Your task to perform on an android device: change notification settings in the gmail app Image 0: 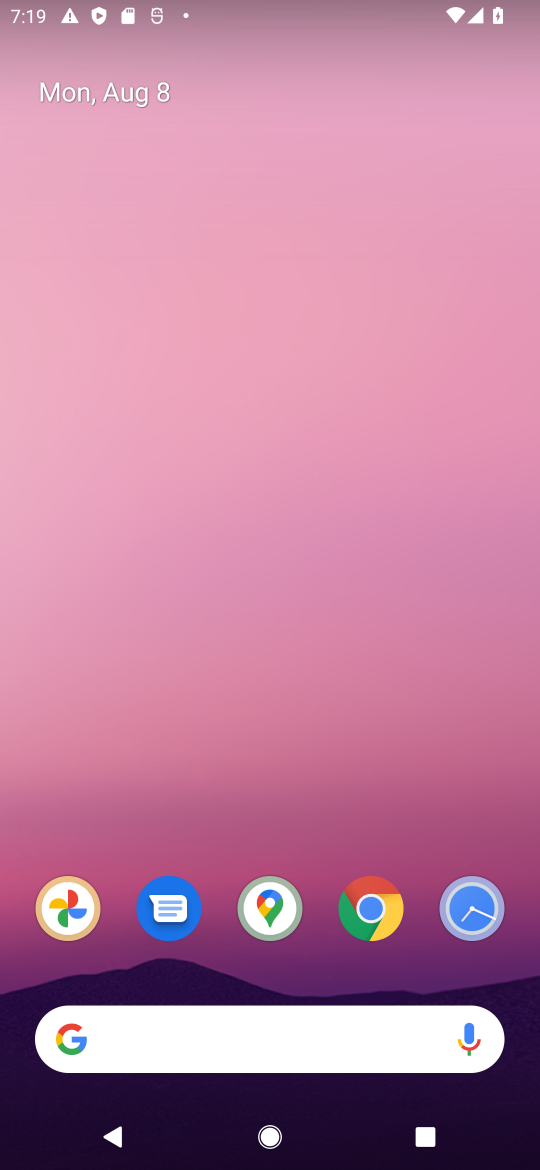
Step 0: drag from (318, 939) to (295, 171)
Your task to perform on an android device: change notification settings in the gmail app Image 1: 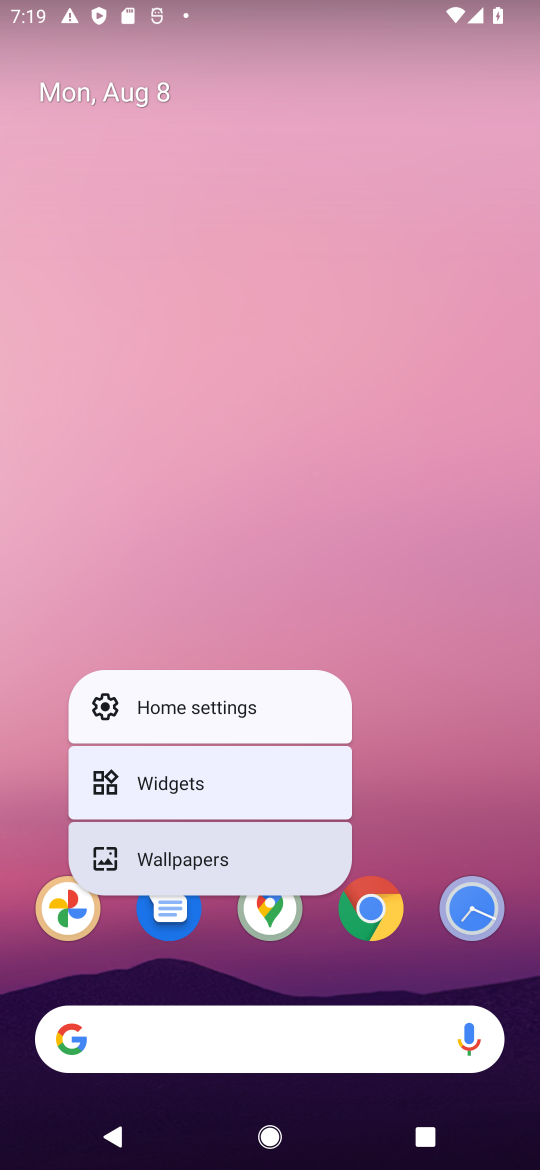
Step 1: click (360, 527)
Your task to perform on an android device: change notification settings in the gmail app Image 2: 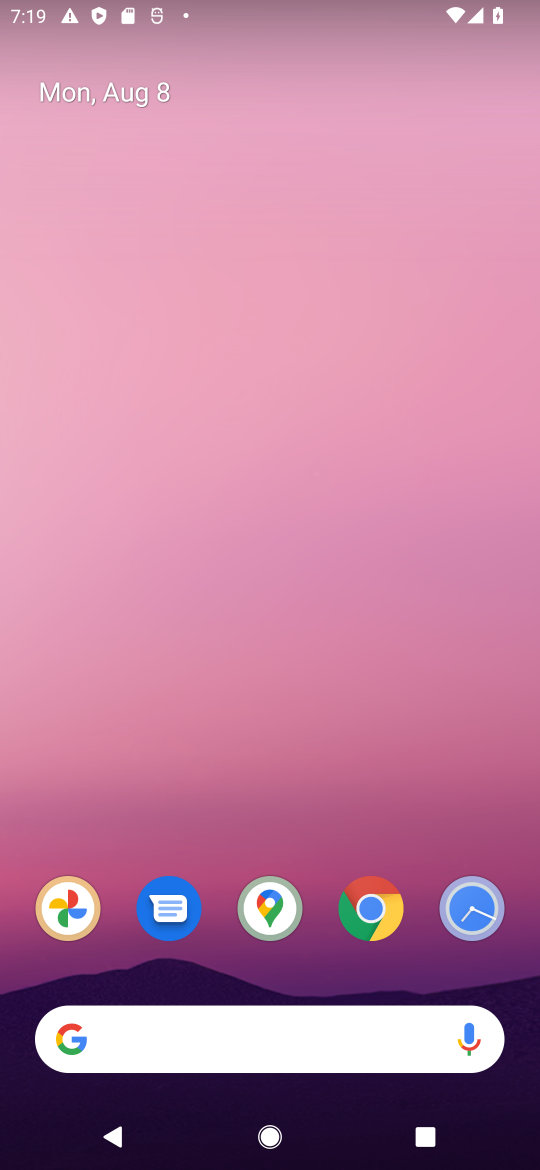
Step 2: drag from (319, 873) to (266, 493)
Your task to perform on an android device: change notification settings in the gmail app Image 3: 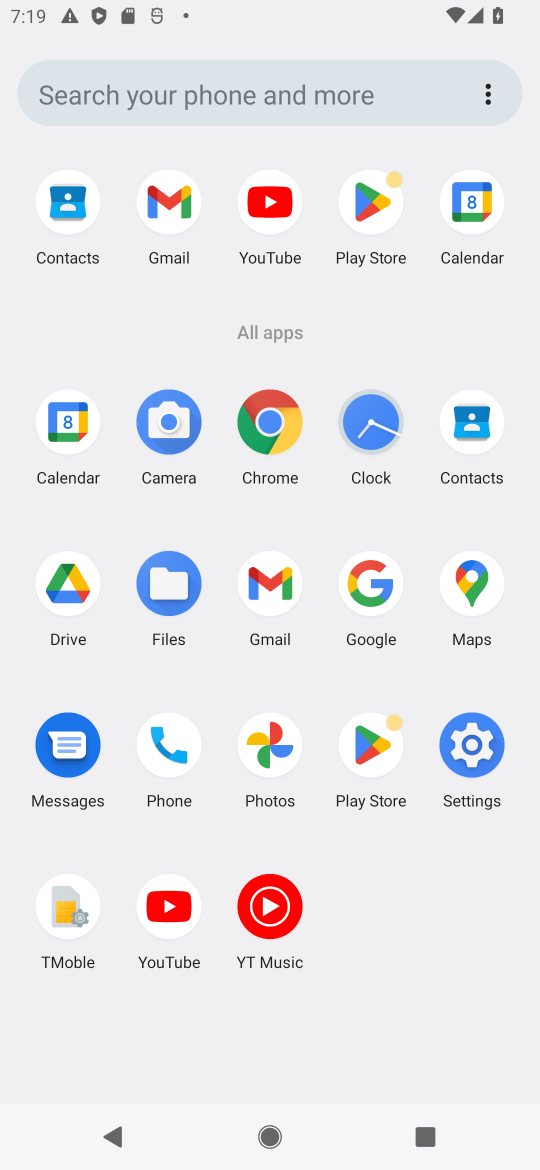
Step 3: click (173, 212)
Your task to perform on an android device: change notification settings in the gmail app Image 4: 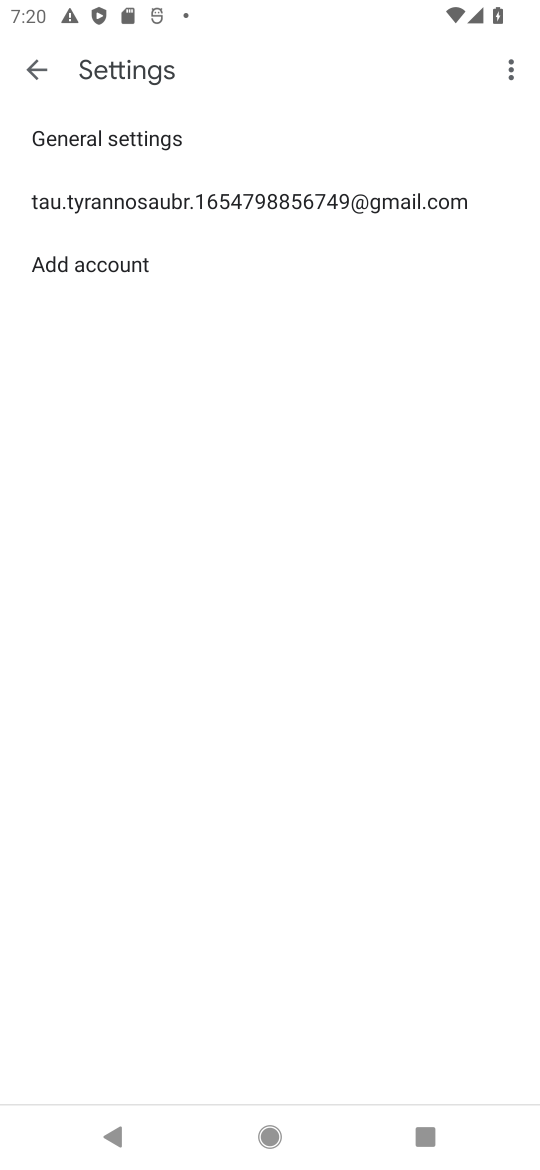
Step 4: click (173, 212)
Your task to perform on an android device: change notification settings in the gmail app Image 5: 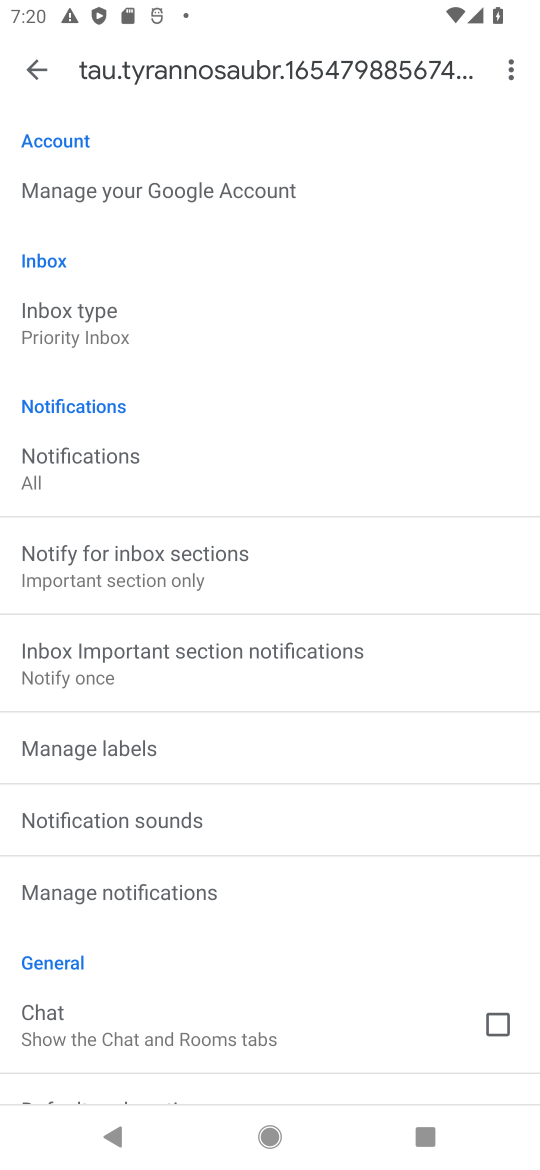
Step 5: click (138, 474)
Your task to perform on an android device: change notification settings in the gmail app Image 6: 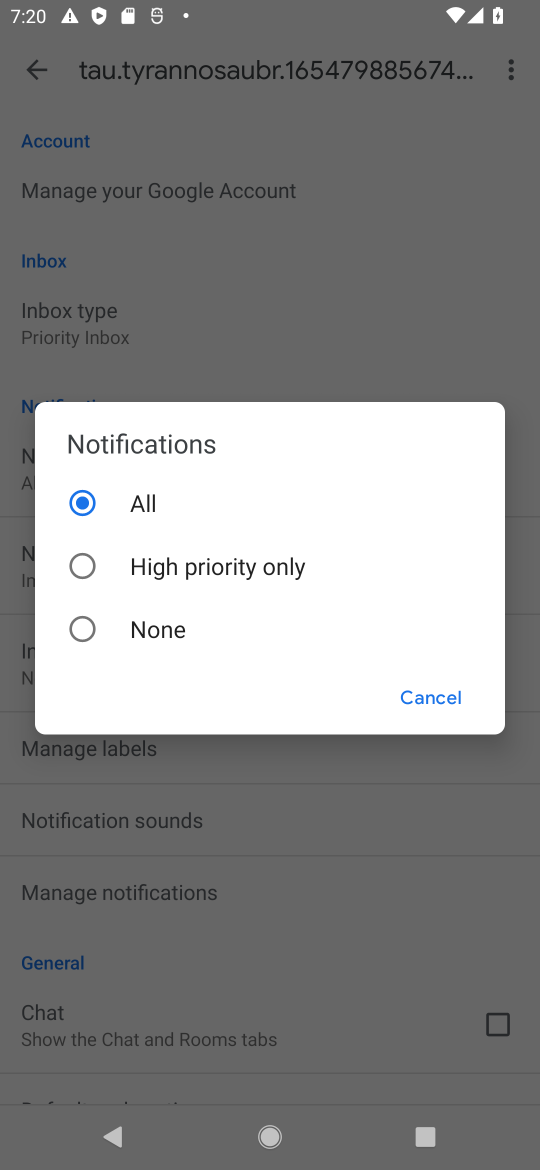
Step 6: click (210, 555)
Your task to perform on an android device: change notification settings in the gmail app Image 7: 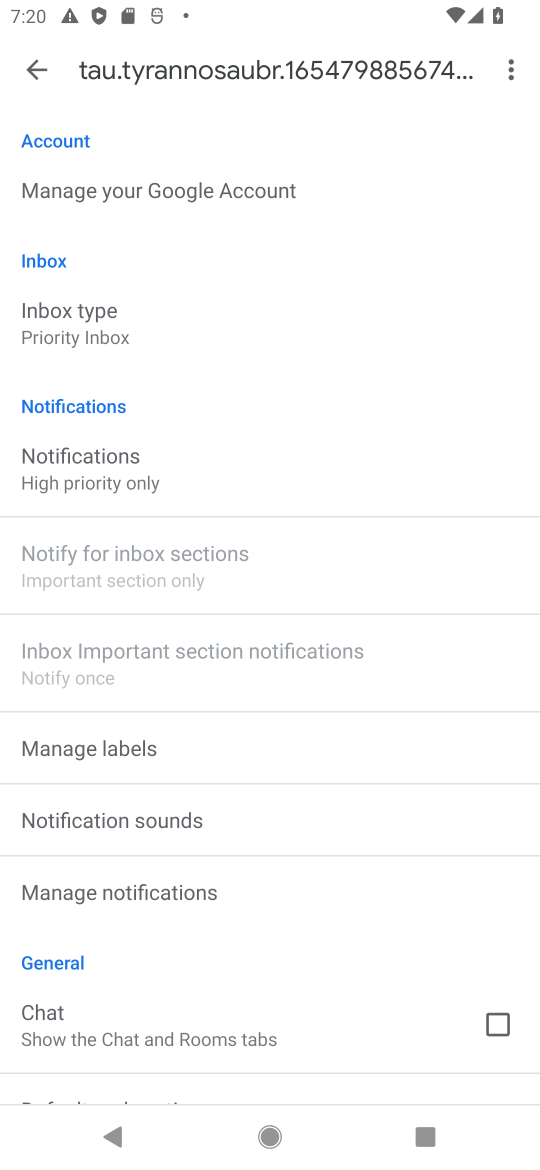
Step 7: task complete